Your task to perform on an android device: change the clock display to digital Image 0: 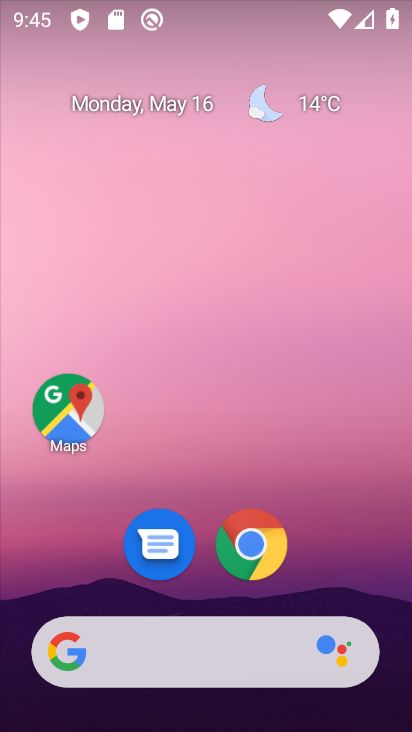
Step 0: drag from (334, 549) to (385, 148)
Your task to perform on an android device: change the clock display to digital Image 1: 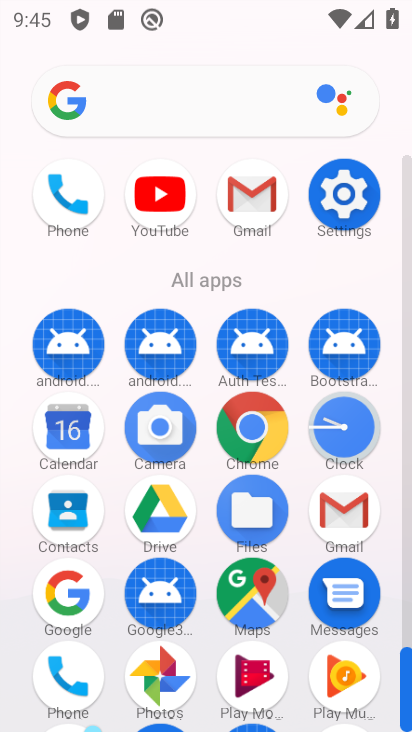
Step 1: click (349, 447)
Your task to perform on an android device: change the clock display to digital Image 2: 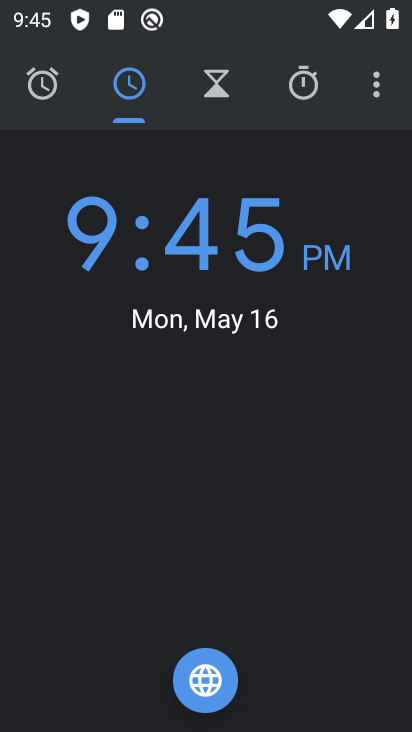
Step 2: click (378, 95)
Your task to perform on an android device: change the clock display to digital Image 3: 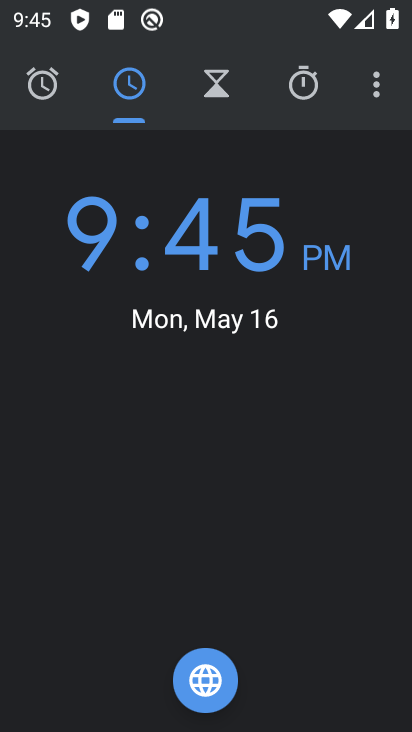
Step 3: click (372, 85)
Your task to perform on an android device: change the clock display to digital Image 4: 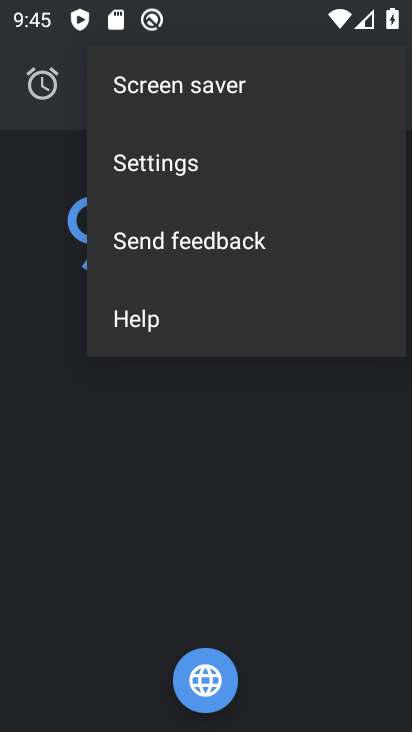
Step 4: click (272, 170)
Your task to perform on an android device: change the clock display to digital Image 5: 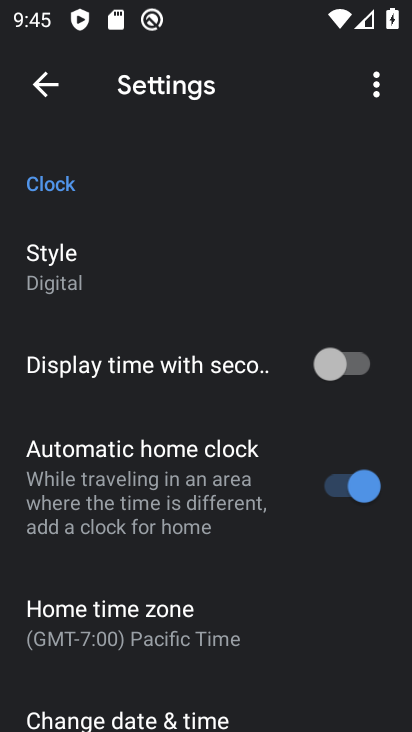
Step 5: task complete